Your task to perform on an android device: Search for the best rated TV on Target Image 0: 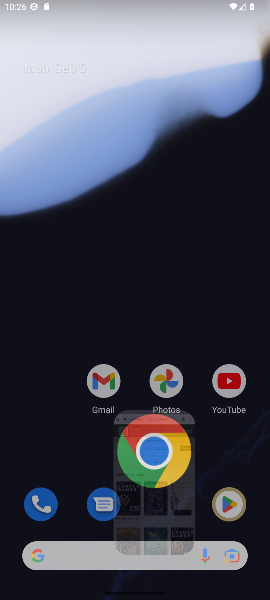
Step 0: press home button
Your task to perform on an android device: Search for the best rated TV on Target Image 1: 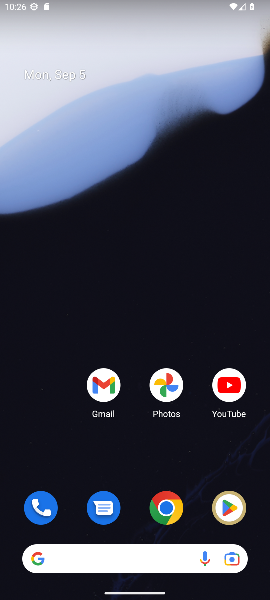
Step 1: drag from (134, 478) to (153, 37)
Your task to perform on an android device: Search for the best rated TV on Target Image 2: 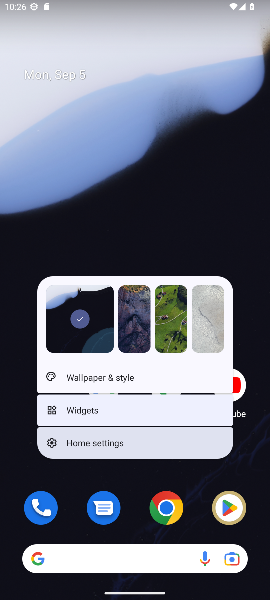
Step 2: click (47, 193)
Your task to perform on an android device: Search for the best rated TV on Target Image 3: 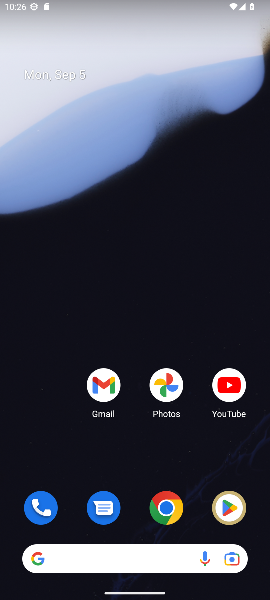
Step 3: drag from (139, 497) to (155, 77)
Your task to perform on an android device: Search for the best rated TV on Target Image 4: 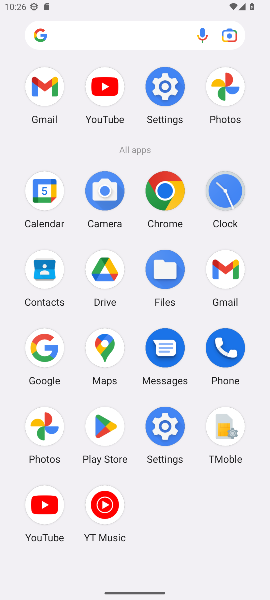
Step 4: click (168, 193)
Your task to perform on an android device: Search for the best rated TV on Target Image 5: 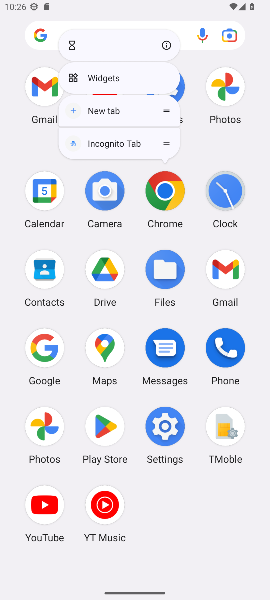
Step 5: click (168, 193)
Your task to perform on an android device: Search for the best rated TV on Target Image 6: 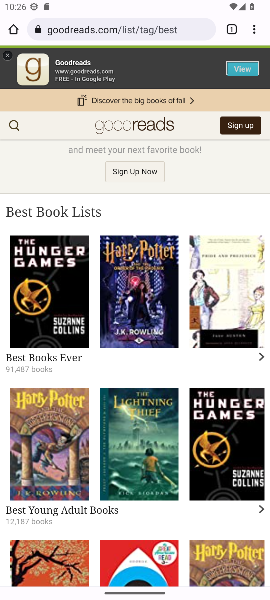
Step 6: click (141, 31)
Your task to perform on an android device: Search for the best rated TV on Target Image 7: 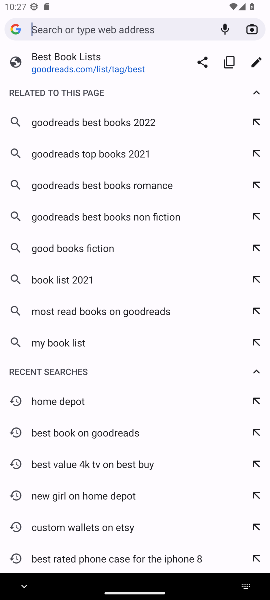
Step 7: type "the  best rated TV on Target"
Your task to perform on an android device: Search for the best rated TV on Target Image 8: 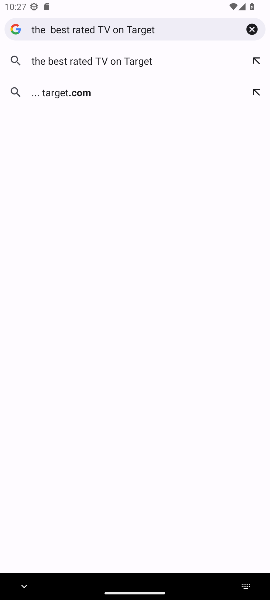
Step 8: press enter
Your task to perform on an android device: Search for the best rated TV on Target Image 9: 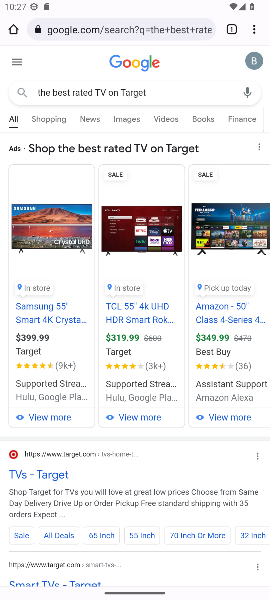
Step 9: click (56, 477)
Your task to perform on an android device: Search for the best rated TV on Target Image 10: 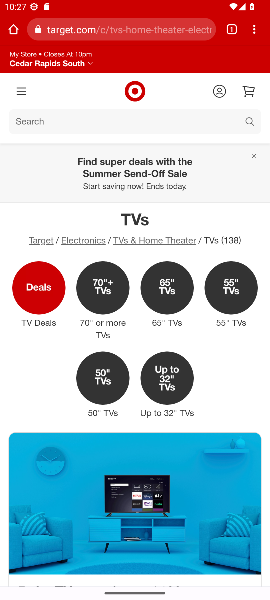
Step 10: click (37, 122)
Your task to perform on an android device: Search for the best rated TV on Target Image 11: 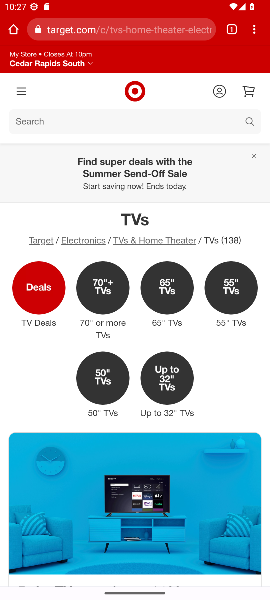
Step 11: click (39, 116)
Your task to perform on an android device: Search for the best rated TV on Target Image 12: 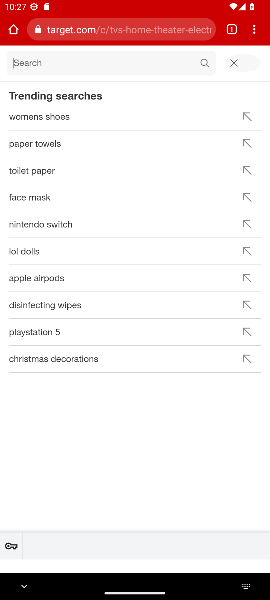
Step 12: type "best buy"
Your task to perform on an android device: Search for the best rated TV on Target Image 13: 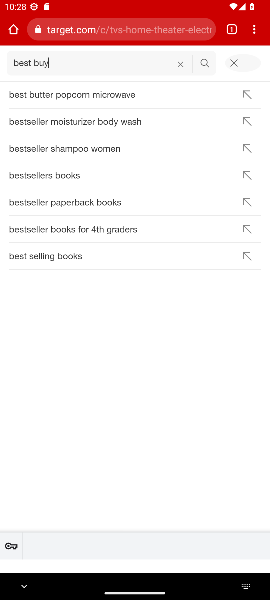
Step 13: press enter
Your task to perform on an android device: Search for the best rated TV on Target Image 14: 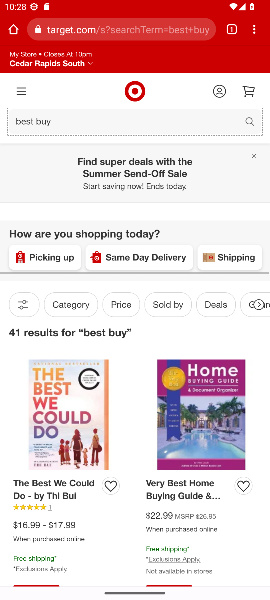
Step 14: click (96, 117)
Your task to perform on an android device: Search for the best rated TV on Target Image 15: 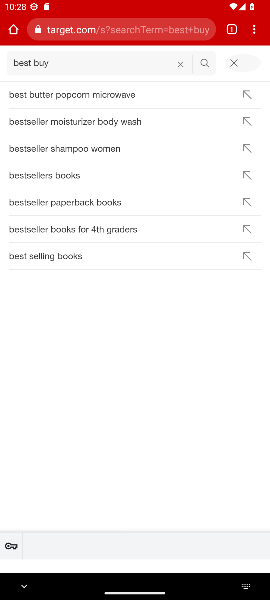
Step 15: type " TV"
Your task to perform on an android device: Search for the best rated TV on Target Image 16: 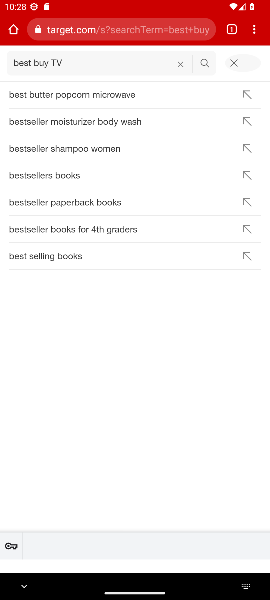
Step 16: press enter
Your task to perform on an android device: Search for the best rated TV on Target Image 17: 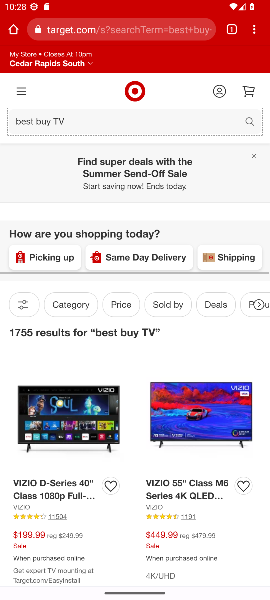
Step 17: task complete